Your task to perform on an android device: add a contact Image 0: 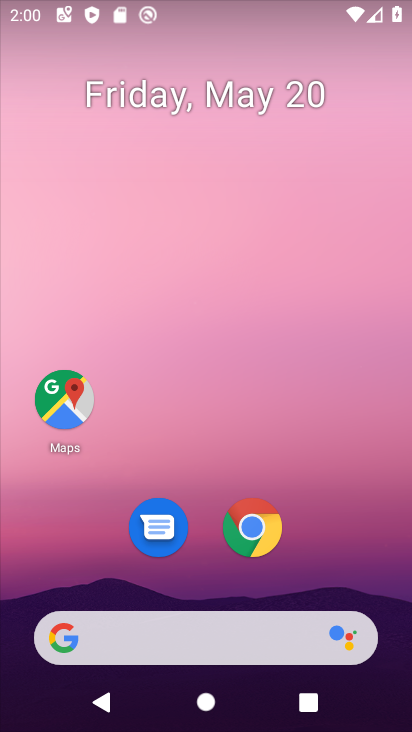
Step 0: drag from (142, 701) to (145, 215)
Your task to perform on an android device: add a contact Image 1: 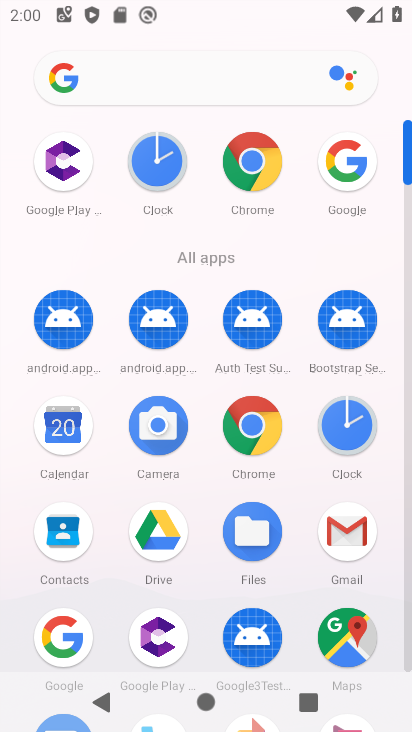
Step 1: click (63, 537)
Your task to perform on an android device: add a contact Image 2: 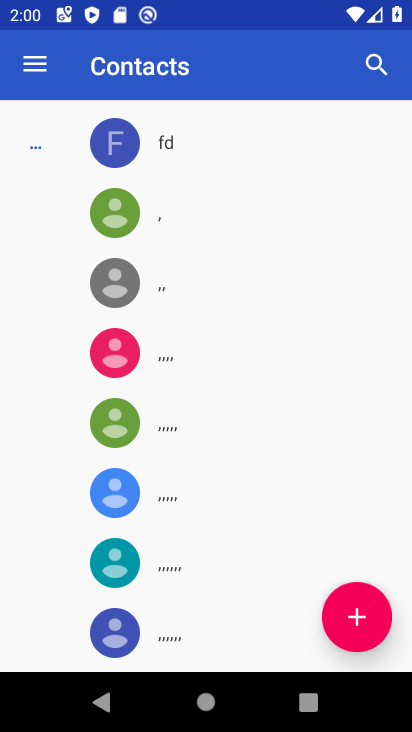
Step 2: click (379, 610)
Your task to perform on an android device: add a contact Image 3: 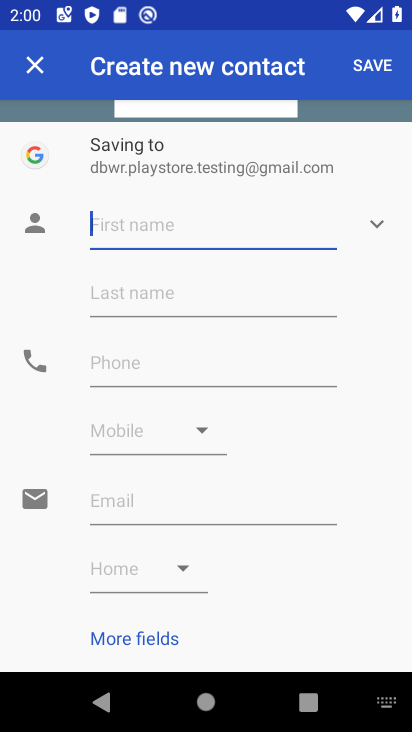
Step 3: type "hjvh"
Your task to perform on an android device: add a contact Image 4: 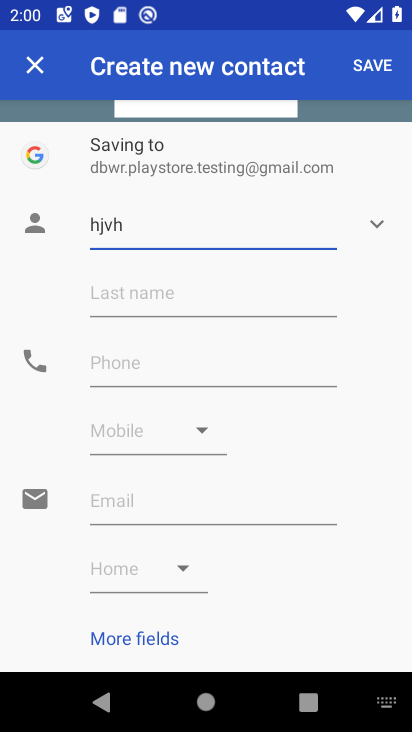
Step 4: click (184, 379)
Your task to perform on an android device: add a contact Image 5: 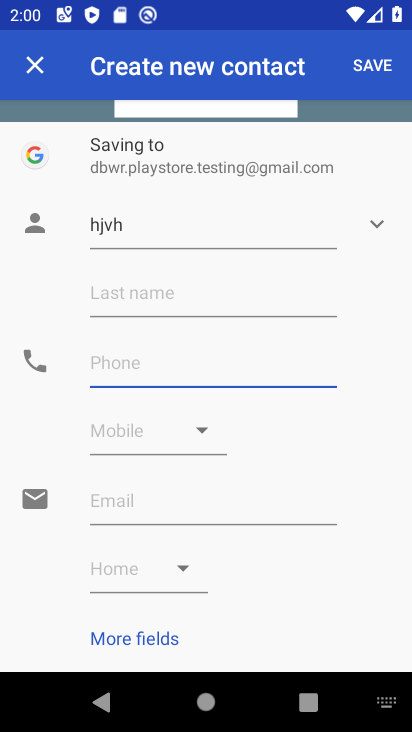
Step 5: type "899"
Your task to perform on an android device: add a contact Image 6: 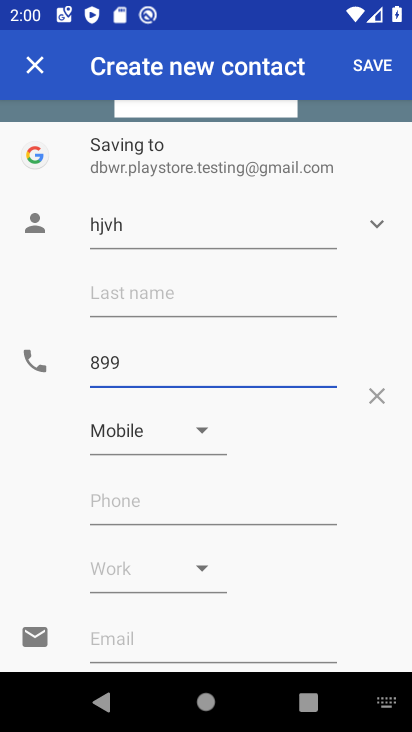
Step 6: click (390, 50)
Your task to perform on an android device: add a contact Image 7: 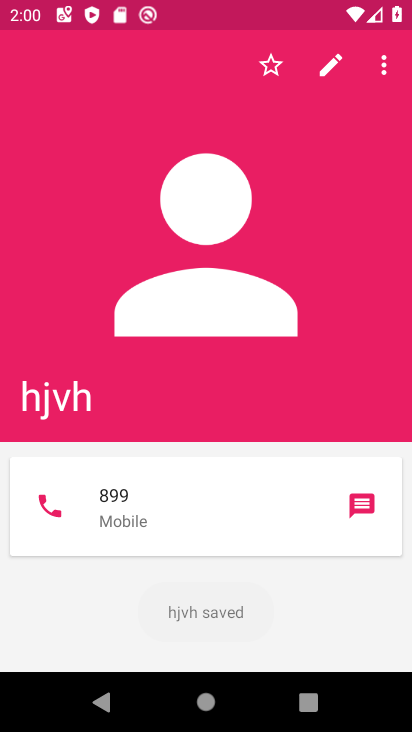
Step 7: task complete